Your task to perform on an android device: delete location history Image 0: 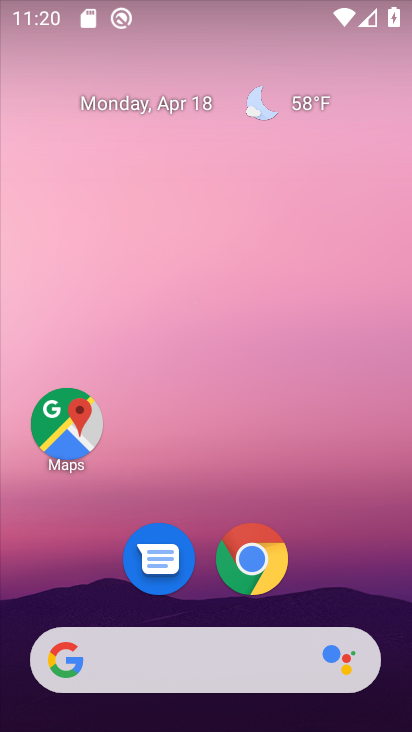
Step 0: drag from (314, 463) to (211, 154)
Your task to perform on an android device: delete location history Image 1: 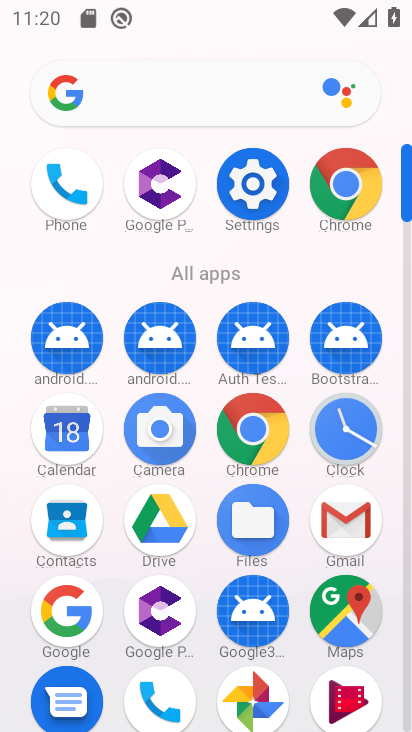
Step 1: drag from (244, 656) to (199, 364)
Your task to perform on an android device: delete location history Image 2: 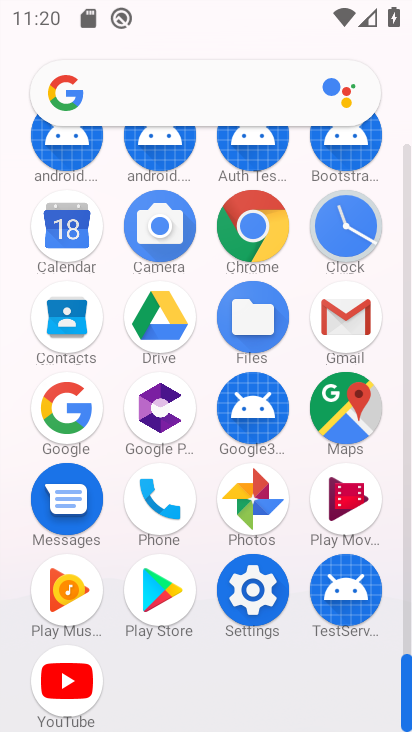
Step 2: click (346, 393)
Your task to perform on an android device: delete location history Image 3: 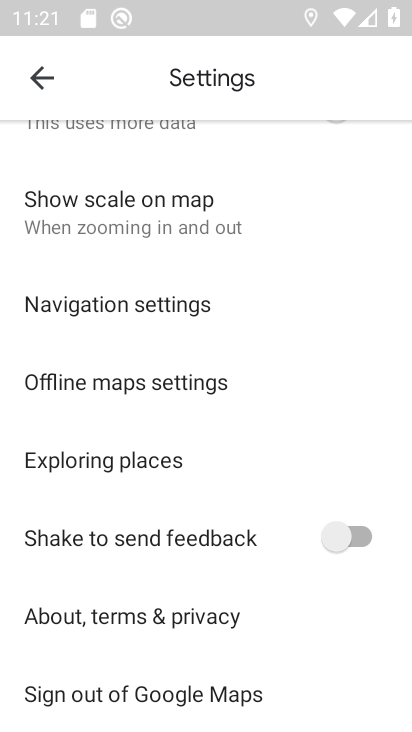
Step 3: drag from (162, 610) to (129, 645)
Your task to perform on an android device: delete location history Image 4: 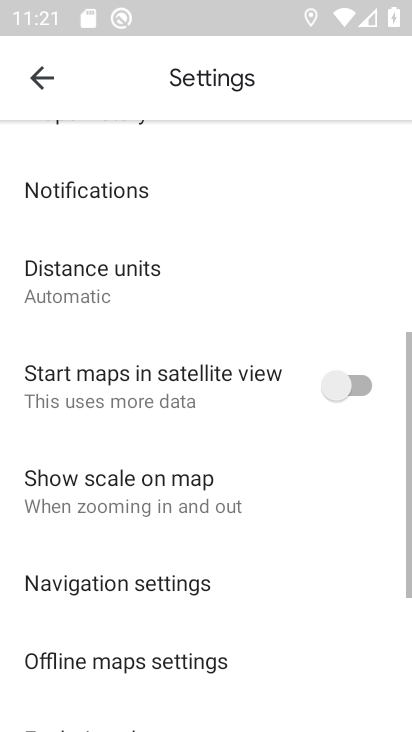
Step 4: drag from (151, 280) to (123, 629)
Your task to perform on an android device: delete location history Image 5: 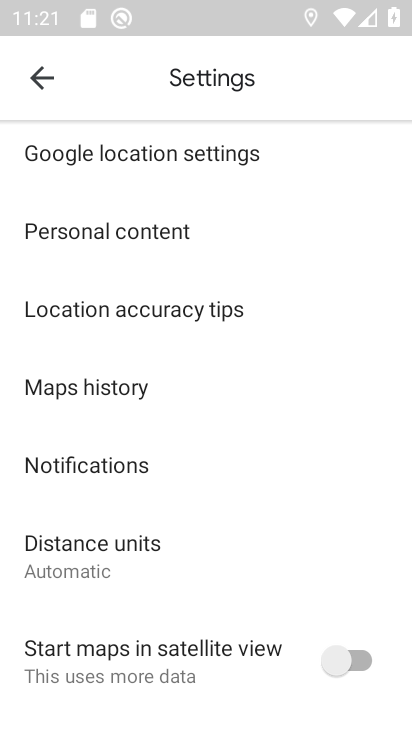
Step 5: click (116, 387)
Your task to perform on an android device: delete location history Image 6: 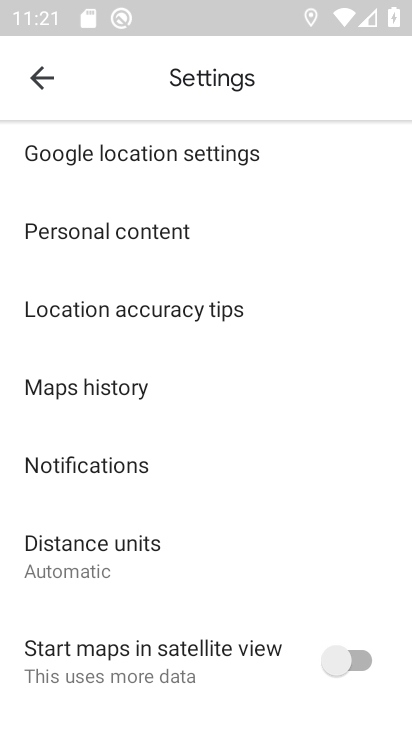
Step 6: drag from (164, 570) to (149, 503)
Your task to perform on an android device: delete location history Image 7: 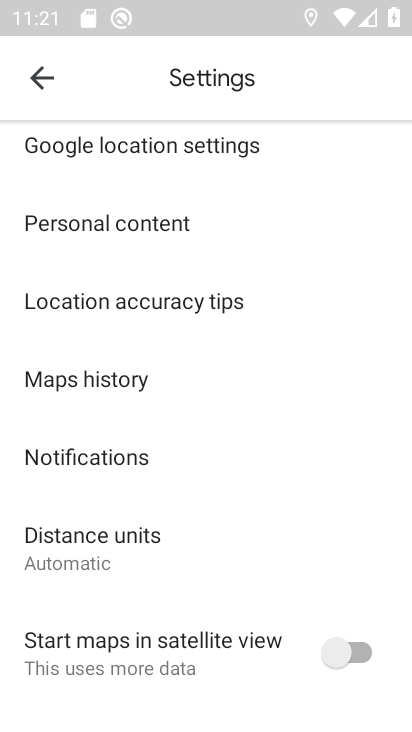
Step 7: click (71, 375)
Your task to perform on an android device: delete location history Image 8: 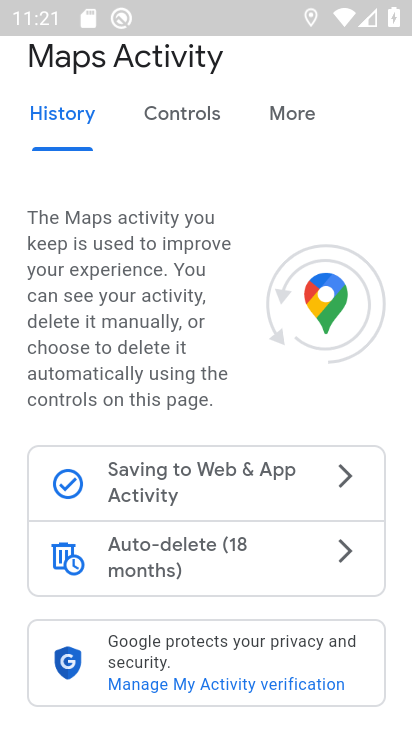
Step 8: drag from (154, 672) to (171, 184)
Your task to perform on an android device: delete location history Image 9: 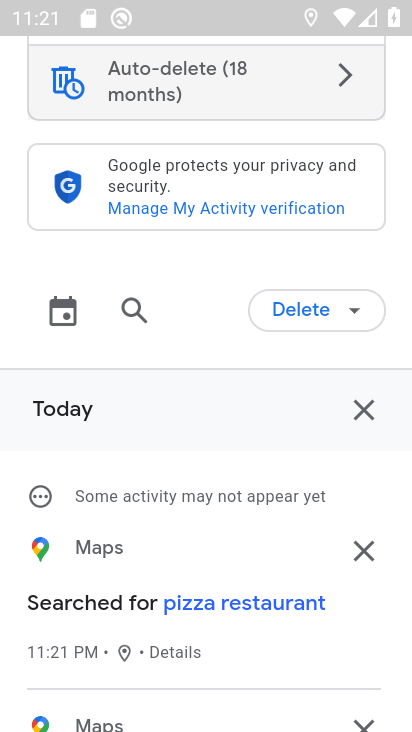
Step 9: drag from (223, 547) to (254, 321)
Your task to perform on an android device: delete location history Image 10: 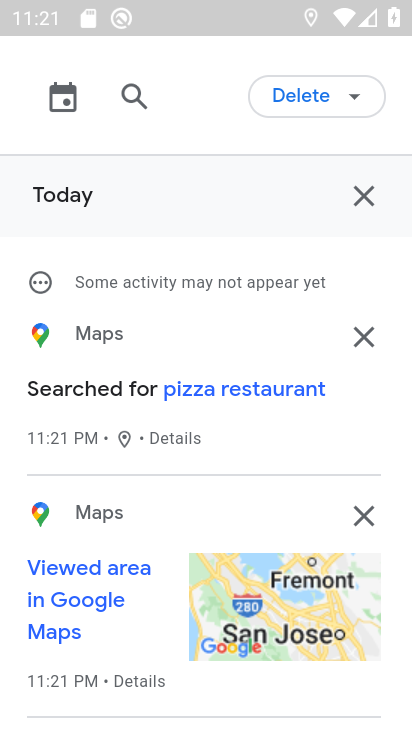
Step 10: click (312, 89)
Your task to perform on an android device: delete location history Image 11: 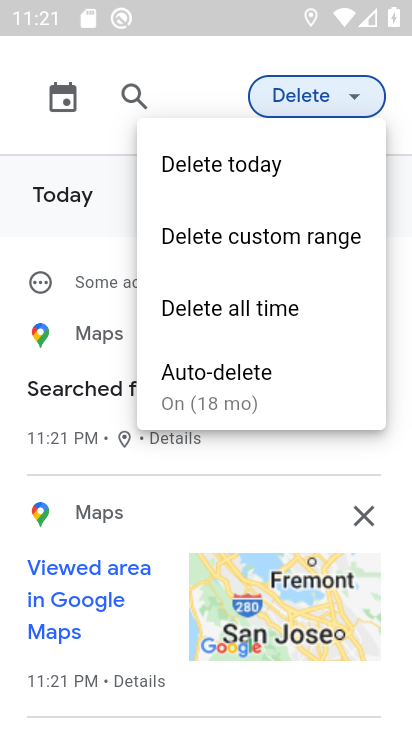
Step 11: click (238, 164)
Your task to perform on an android device: delete location history Image 12: 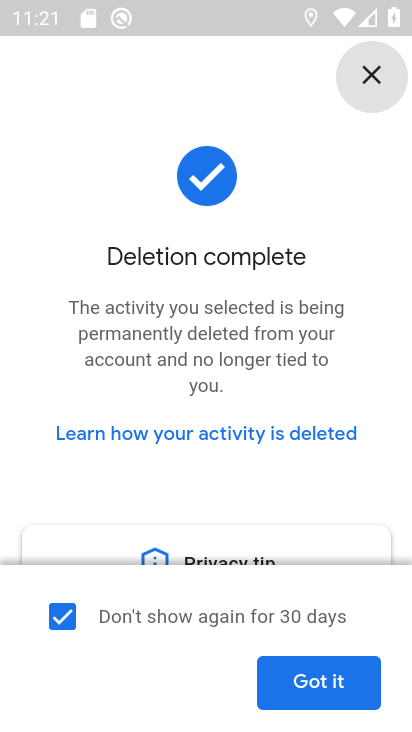
Step 12: click (321, 685)
Your task to perform on an android device: delete location history Image 13: 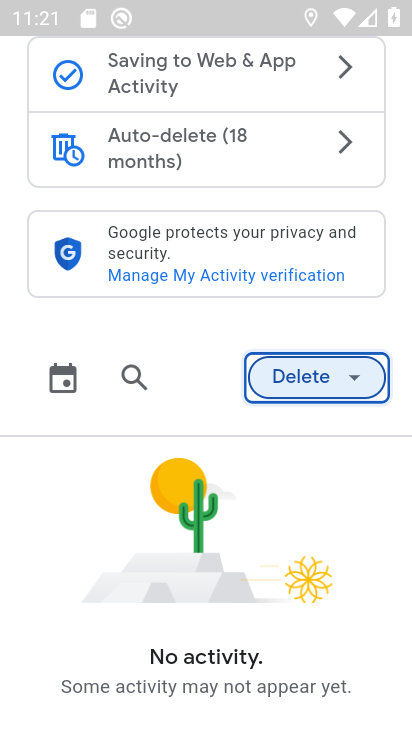
Step 13: task complete